Your task to perform on an android device: Open network settings Image 0: 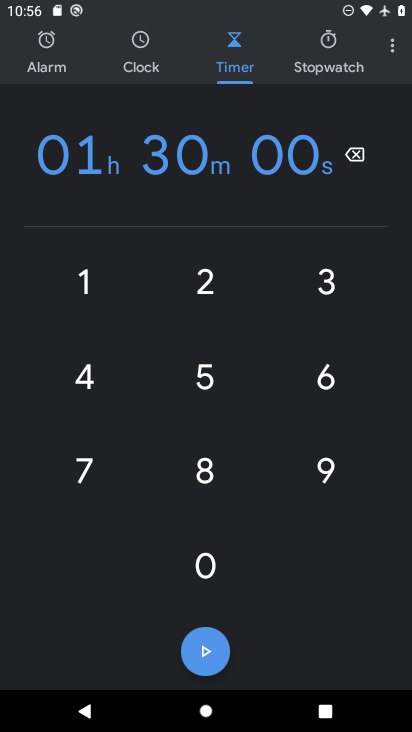
Step 0: press home button
Your task to perform on an android device: Open network settings Image 1: 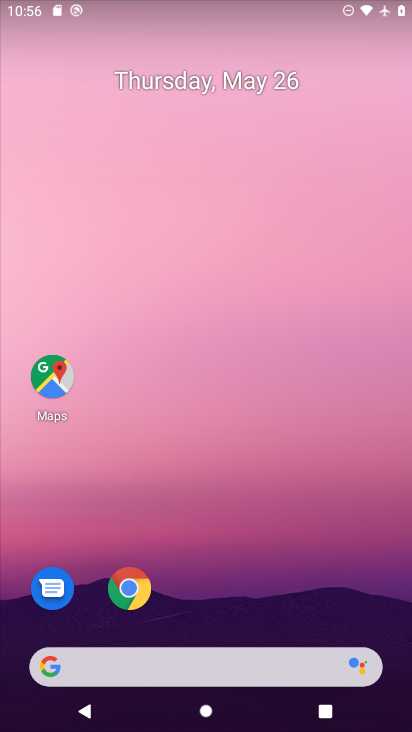
Step 1: drag from (351, 608) to (293, 64)
Your task to perform on an android device: Open network settings Image 2: 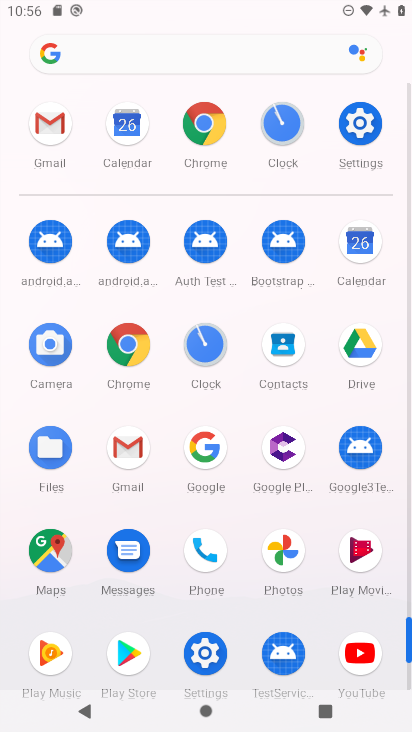
Step 2: click (409, 679)
Your task to perform on an android device: Open network settings Image 3: 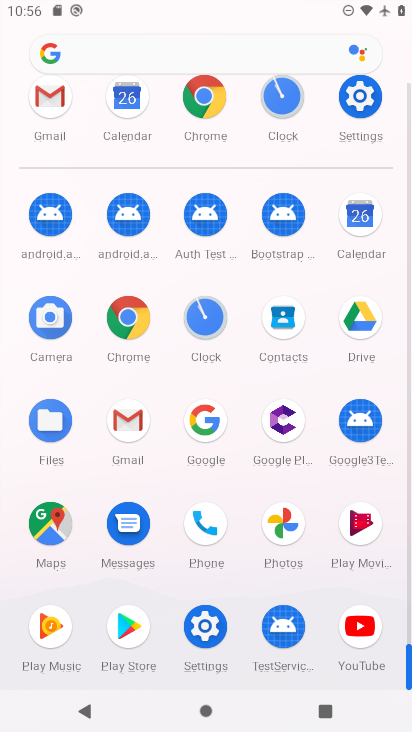
Step 3: click (206, 624)
Your task to perform on an android device: Open network settings Image 4: 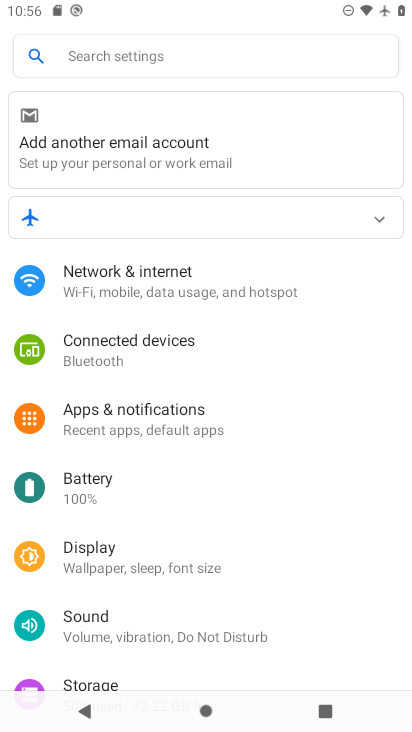
Step 4: click (125, 265)
Your task to perform on an android device: Open network settings Image 5: 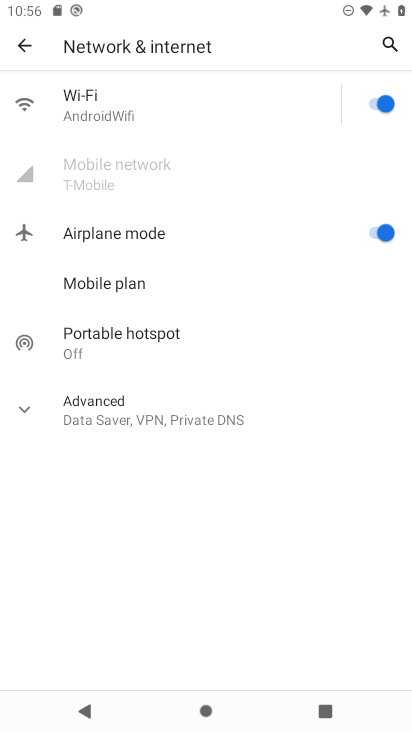
Step 5: click (366, 230)
Your task to perform on an android device: Open network settings Image 6: 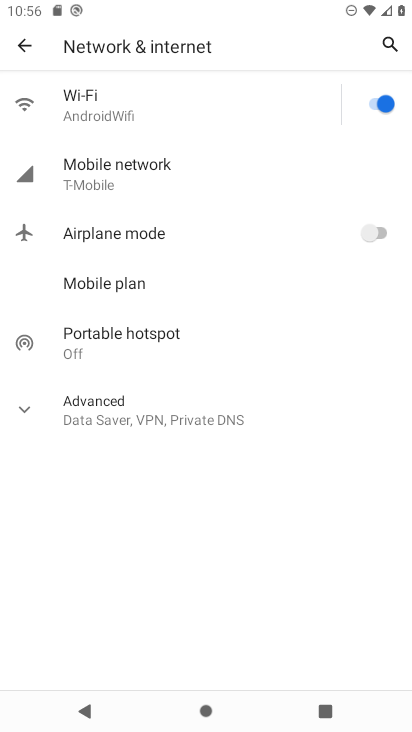
Step 6: click (88, 157)
Your task to perform on an android device: Open network settings Image 7: 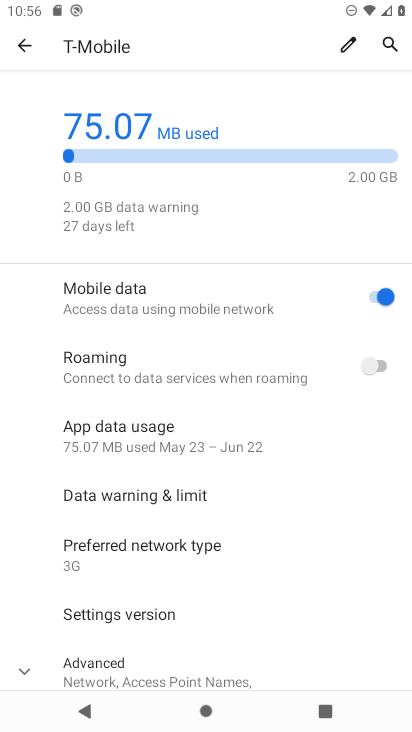
Step 7: task complete